Your task to perform on an android device: empty trash in the gmail app Image 0: 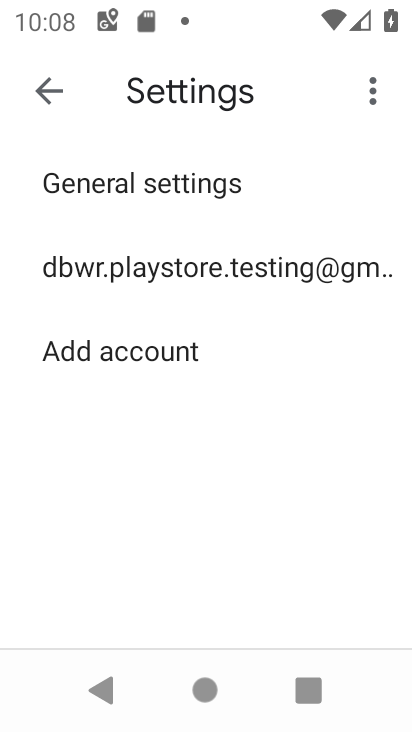
Step 0: press home button
Your task to perform on an android device: empty trash in the gmail app Image 1: 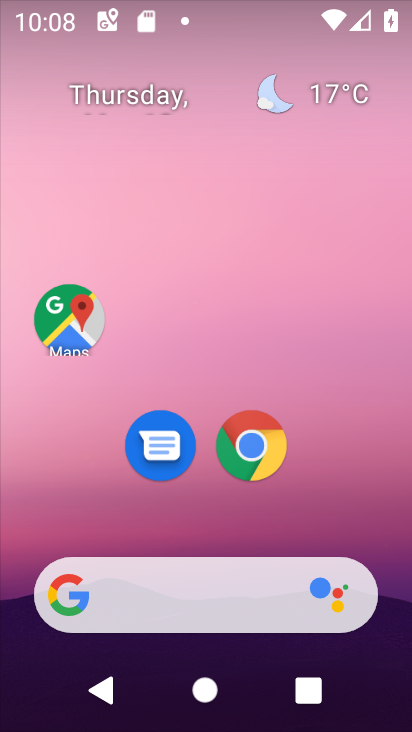
Step 1: drag from (246, 526) to (276, 168)
Your task to perform on an android device: empty trash in the gmail app Image 2: 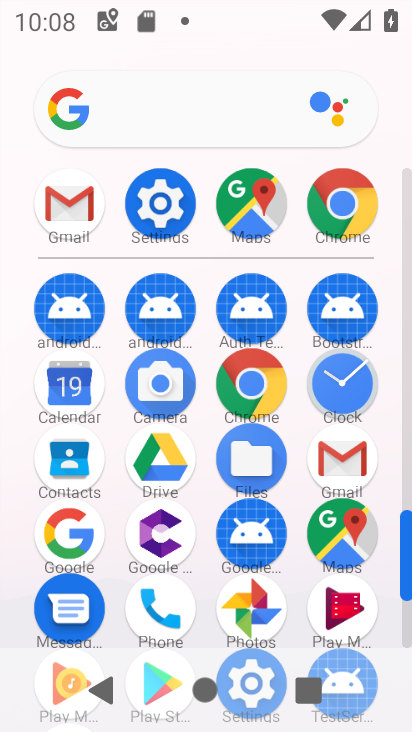
Step 2: click (328, 459)
Your task to perform on an android device: empty trash in the gmail app Image 3: 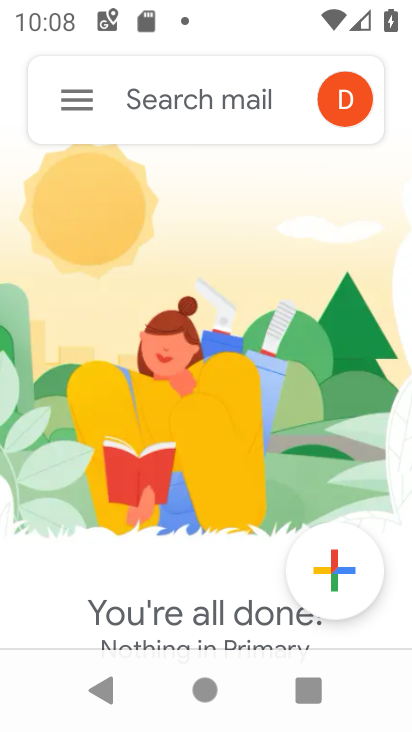
Step 3: click (88, 103)
Your task to perform on an android device: empty trash in the gmail app Image 4: 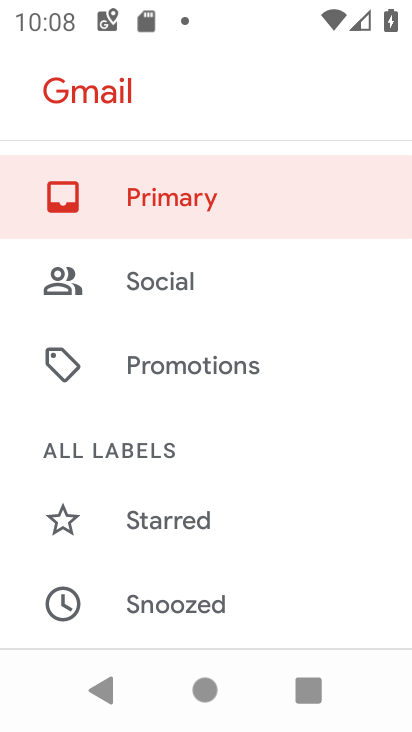
Step 4: drag from (184, 524) to (236, 168)
Your task to perform on an android device: empty trash in the gmail app Image 5: 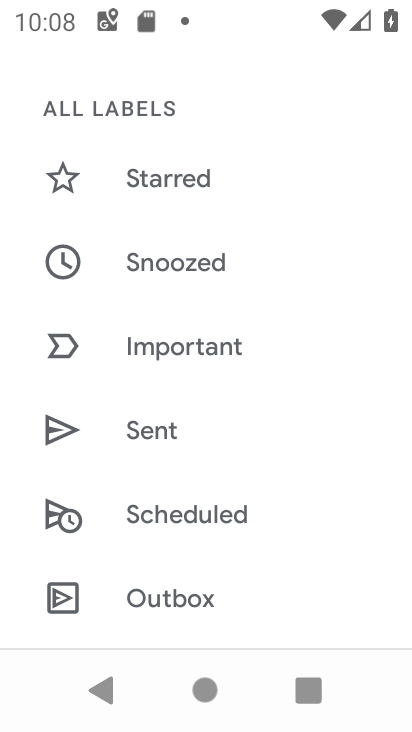
Step 5: drag from (225, 562) to (239, 254)
Your task to perform on an android device: empty trash in the gmail app Image 6: 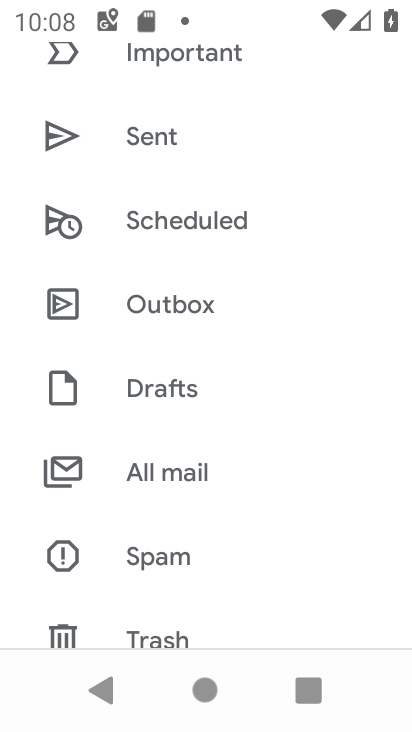
Step 6: drag from (187, 590) to (212, 387)
Your task to perform on an android device: empty trash in the gmail app Image 7: 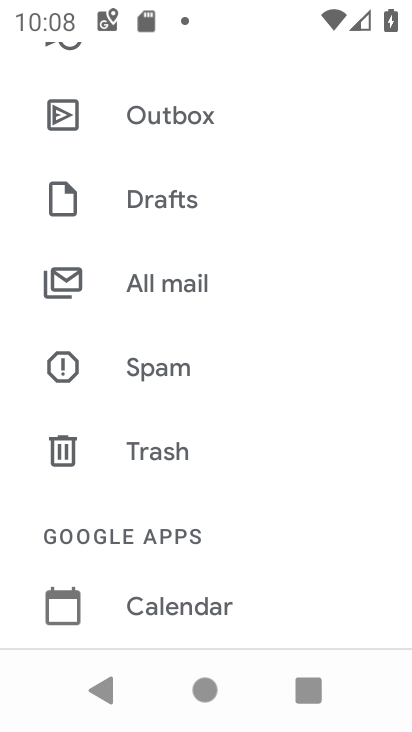
Step 7: click (171, 457)
Your task to perform on an android device: empty trash in the gmail app Image 8: 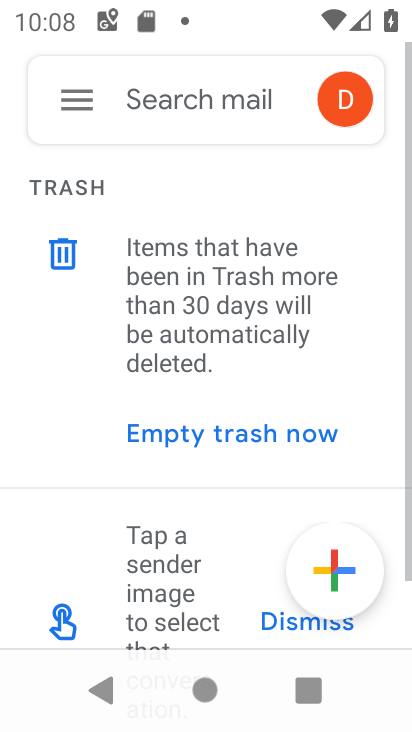
Step 8: click (195, 439)
Your task to perform on an android device: empty trash in the gmail app Image 9: 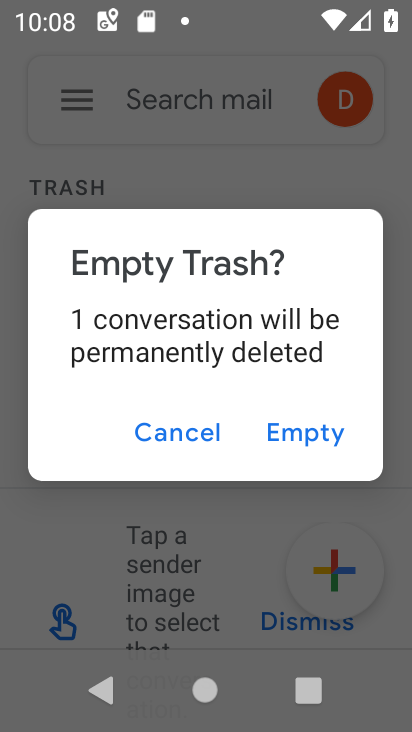
Step 9: click (317, 437)
Your task to perform on an android device: empty trash in the gmail app Image 10: 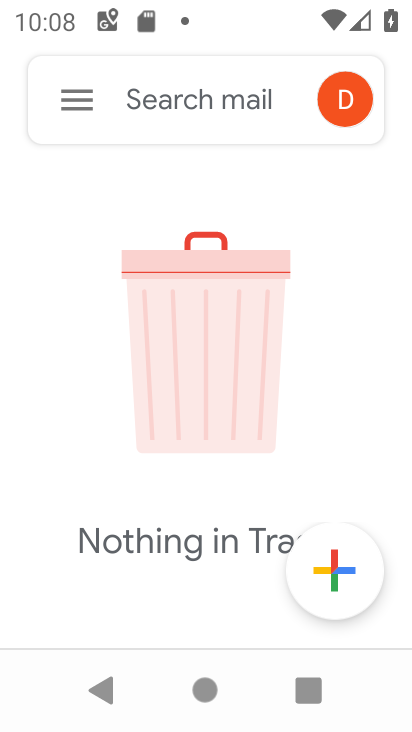
Step 10: task complete